Your task to perform on an android device: install app "DuckDuckGo Privacy Browser" Image 0: 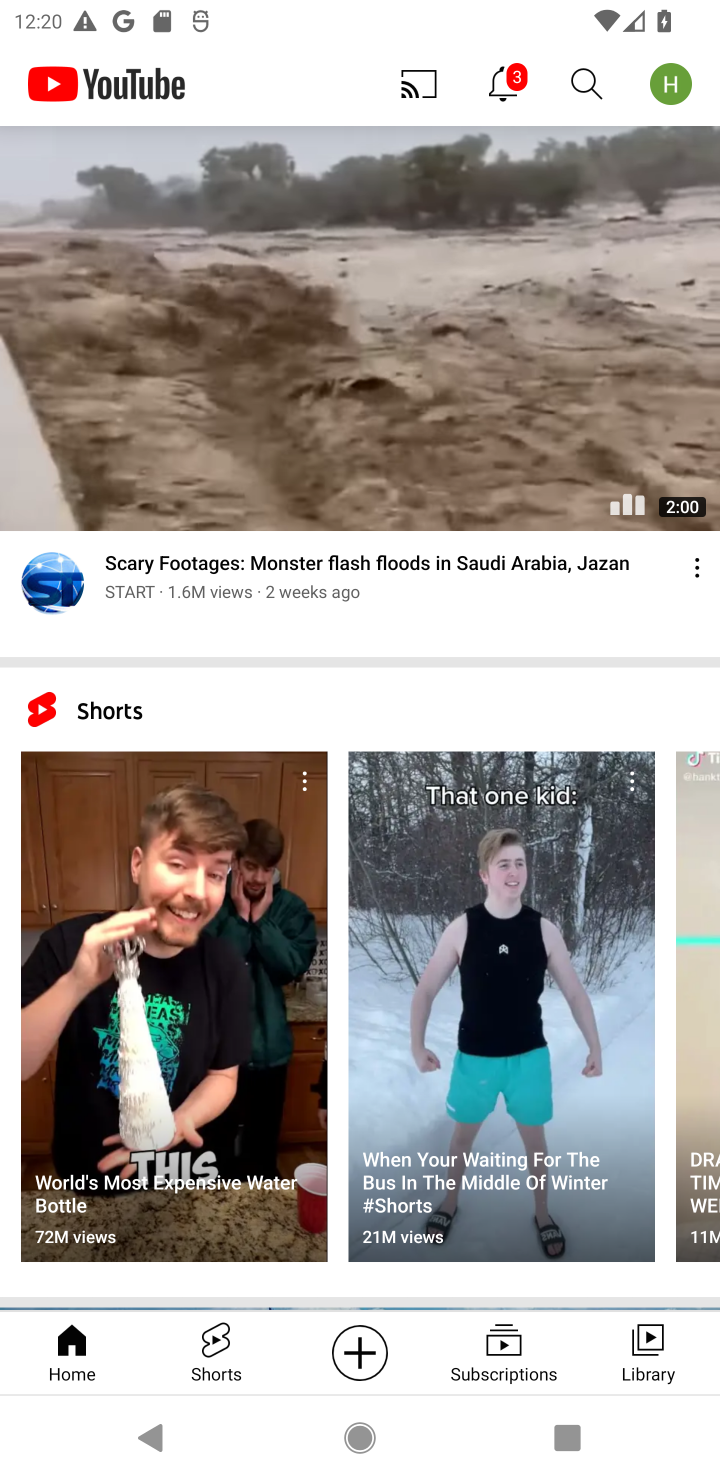
Step 0: press home button
Your task to perform on an android device: install app "DuckDuckGo Privacy Browser" Image 1: 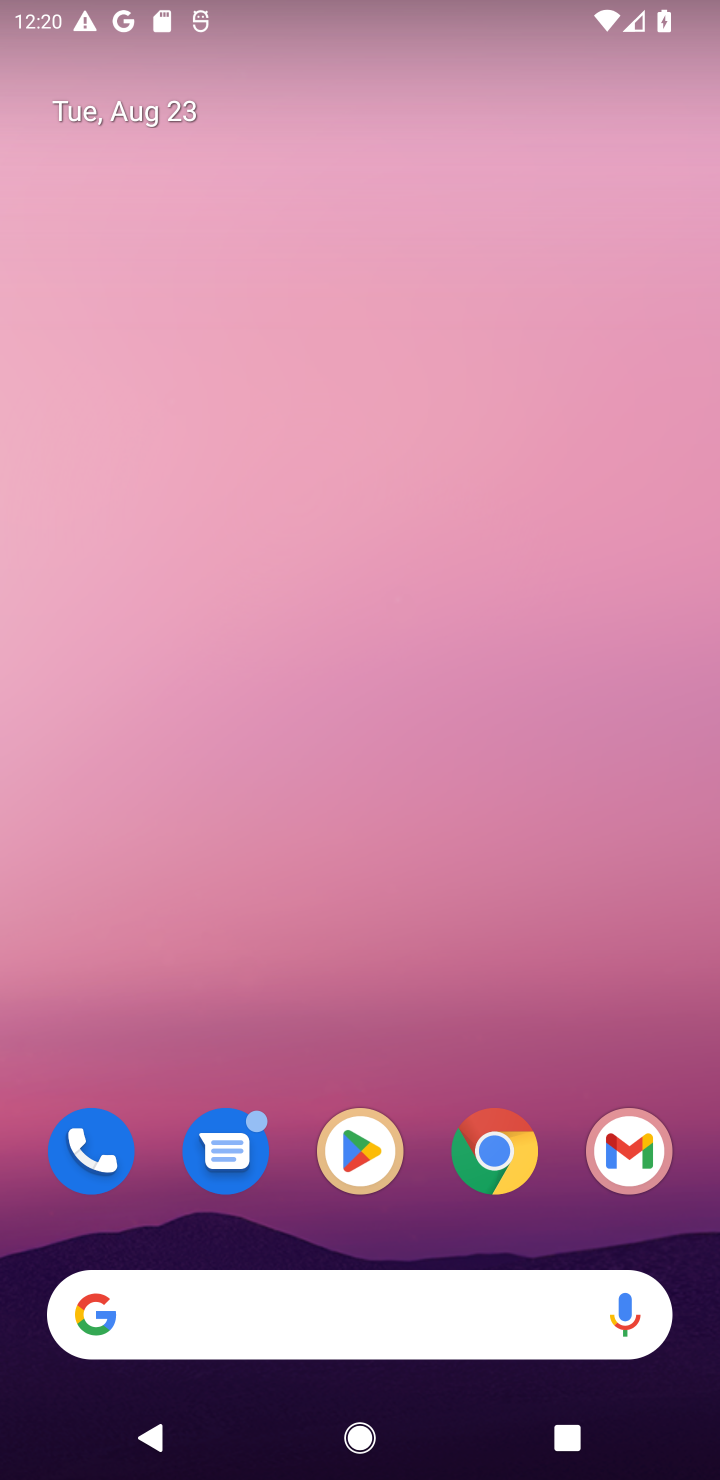
Step 1: click (361, 1153)
Your task to perform on an android device: install app "DuckDuckGo Privacy Browser" Image 2: 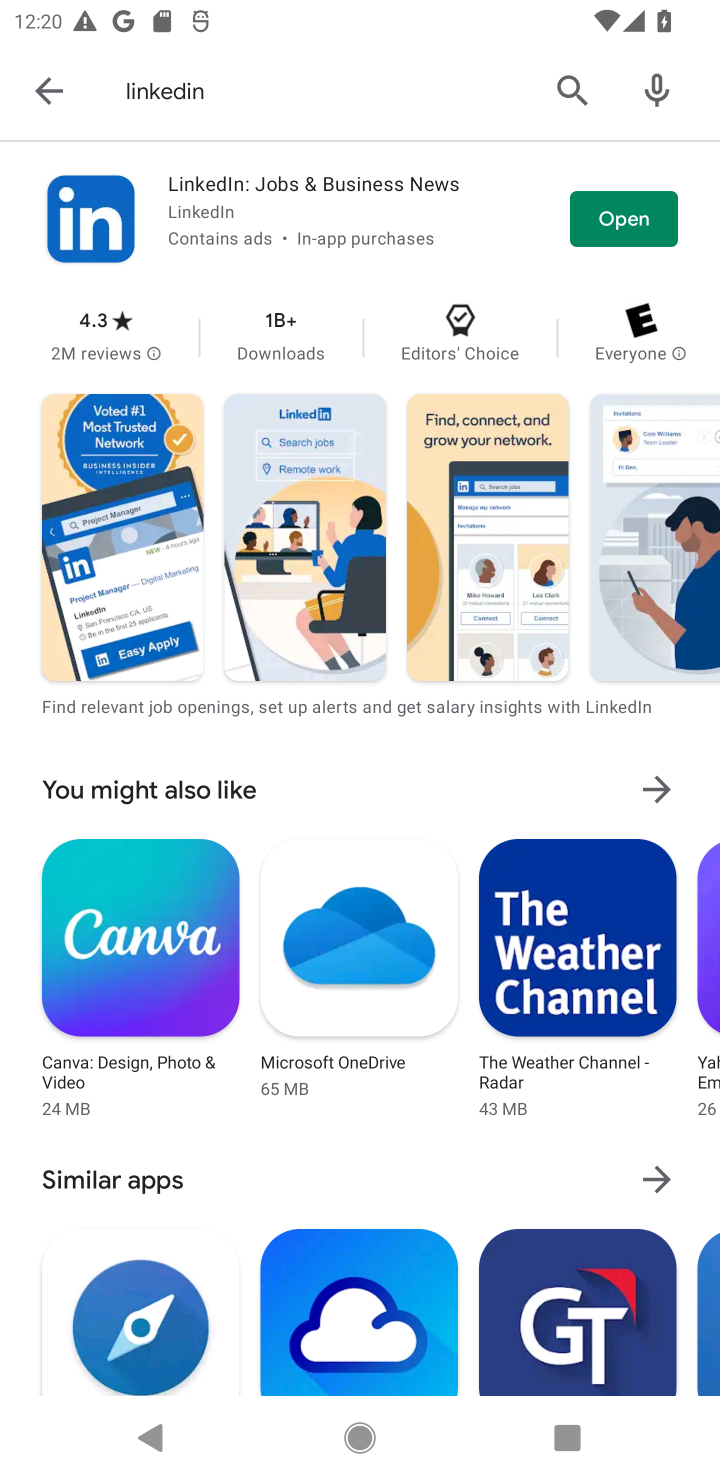
Step 2: click (575, 104)
Your task to perform on an android device: install app "DuckDuckGo Privacy Browser" Image 3: 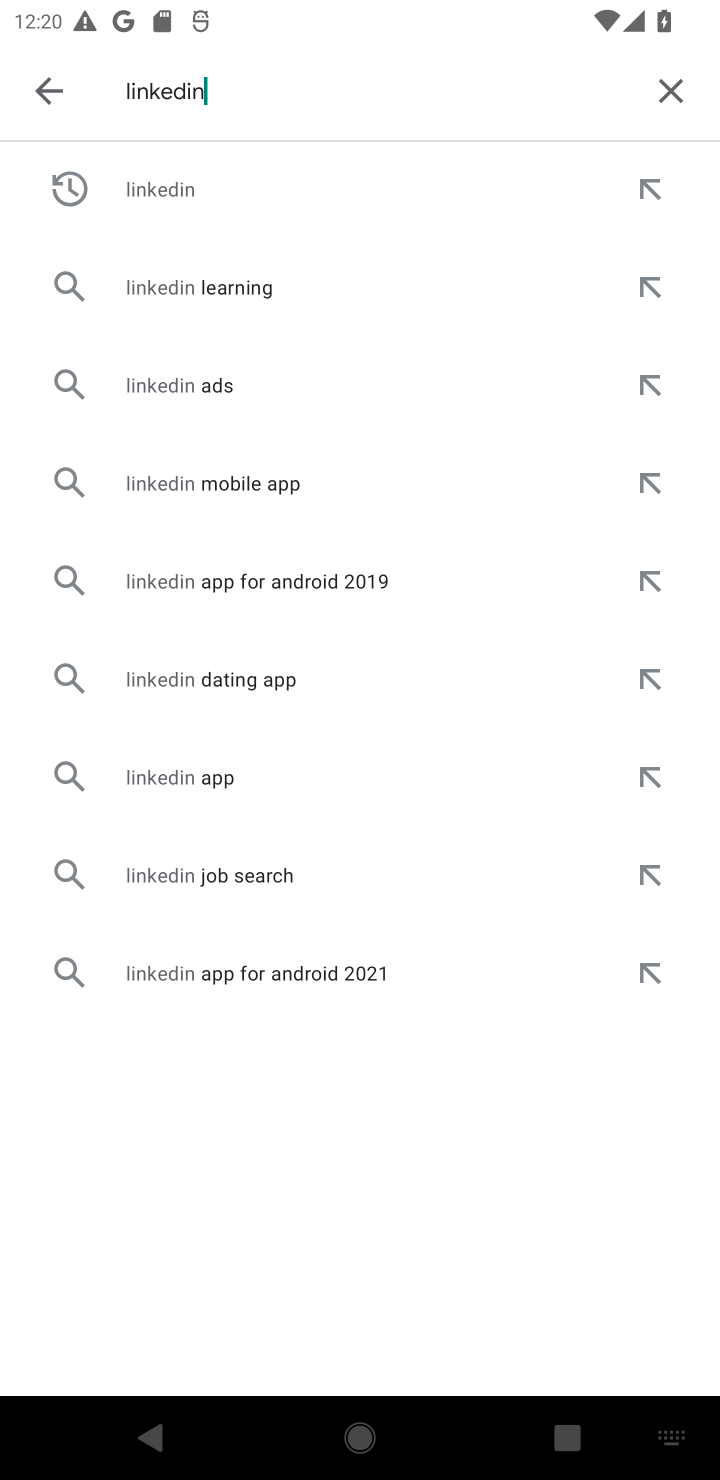
Step 3: click (656, 69)
Your task to perform on an android device: install app "DuckDuckGo Privacy Browser" Image 4: 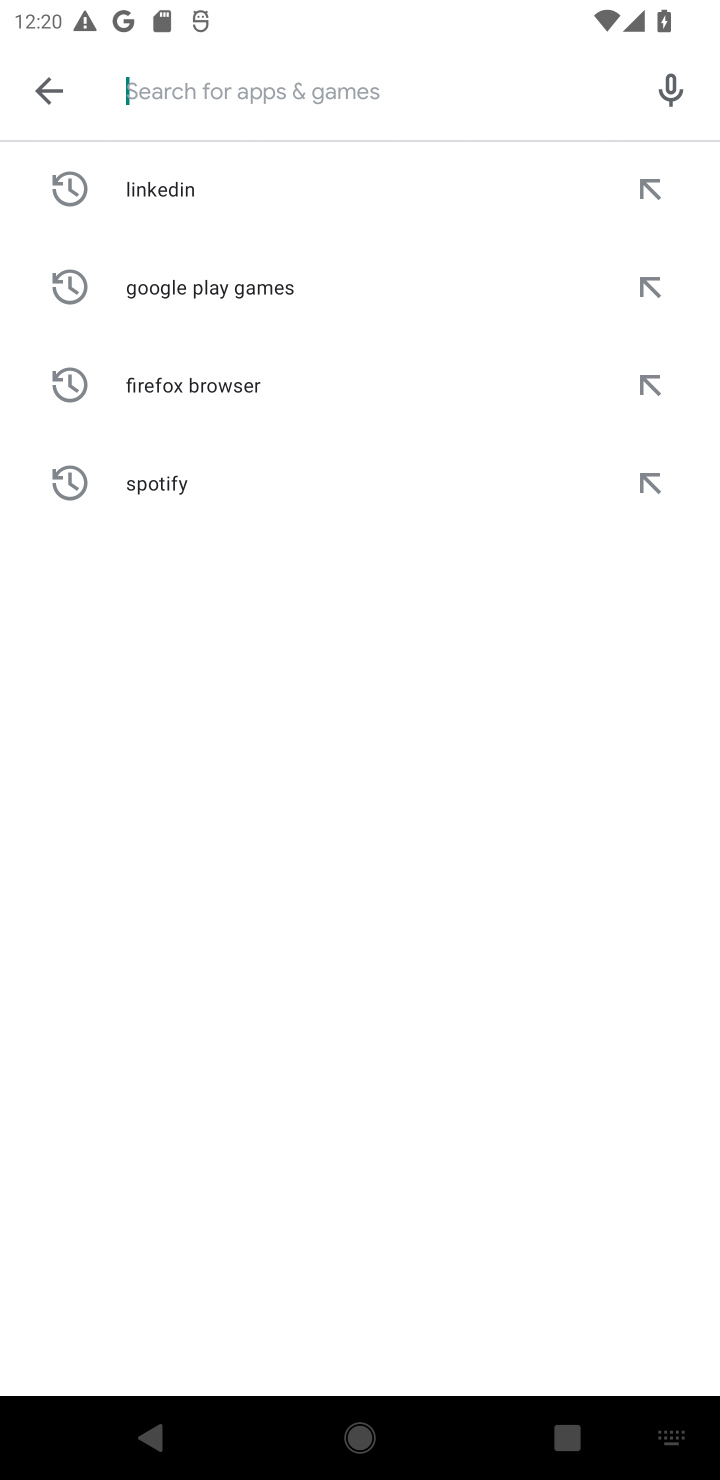
Step 4: type "DuckDuckGo Privacy Browse"
Your task to perform on an android device: install app "DuckDuckGo Privacy Browser" Image 5: 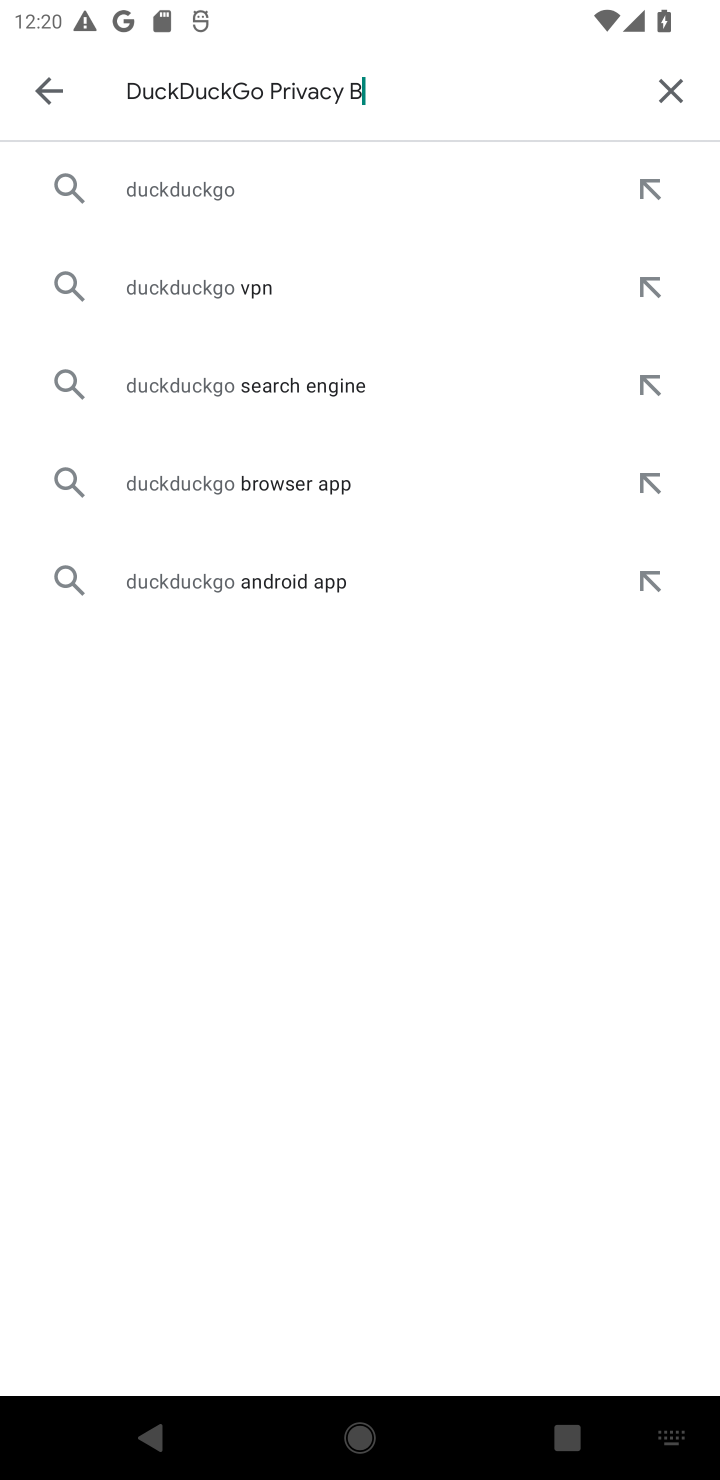
Step 5: type ""
Your task to perform on an android device: install app "DuckDuckGo Privacy Browser" Image 6: 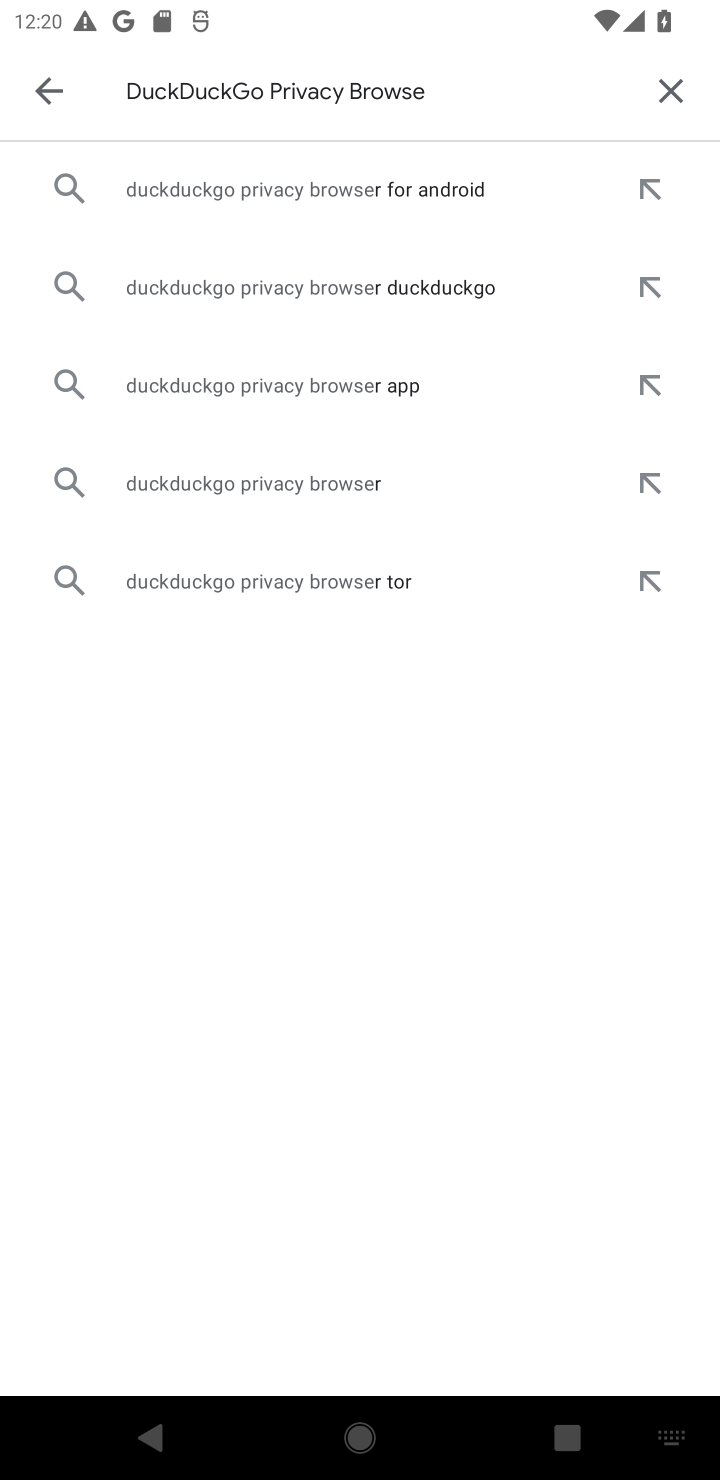
Step 6: click (468, 183)
Your task to perform on an android device: install app "DuckDuckGo Privacy Browser" Image 7: 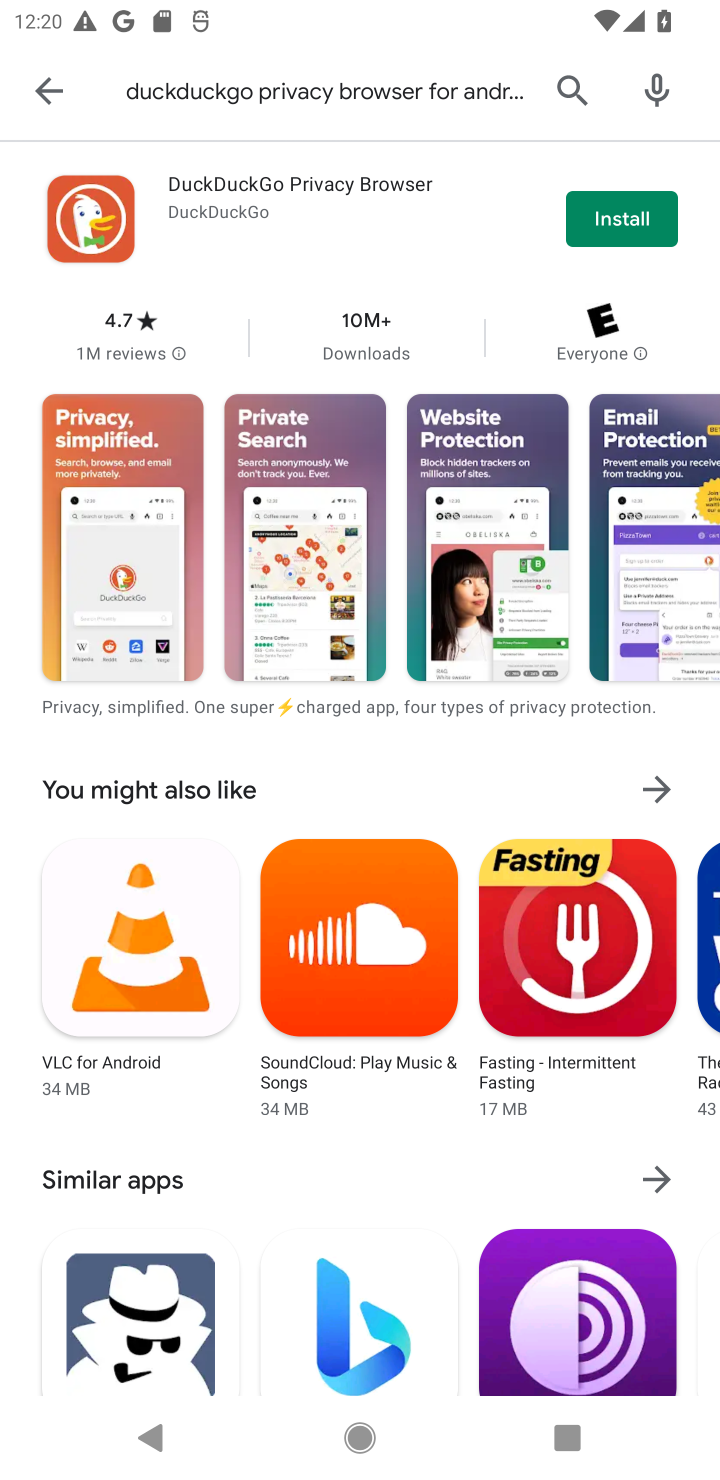
Step 7: click (634, 202)
Your task to perform on an android device: install app "DuckDuckGo Privacy Browser" Image 8: 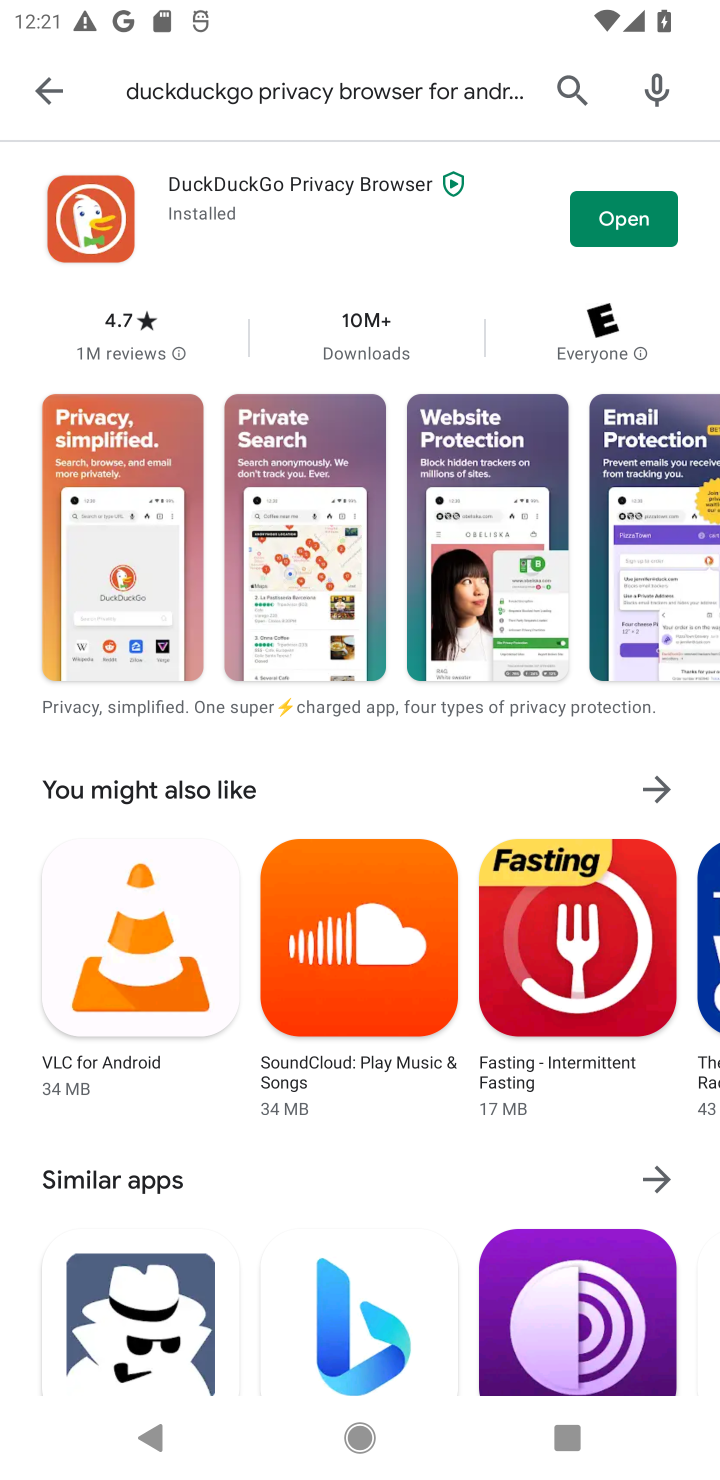
Step 8: task complete